Your task to perform on an android device: all mails in gmail Image 0: 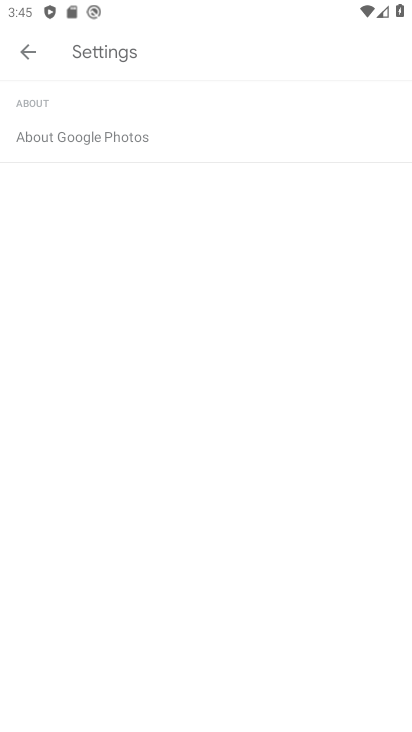
Step 0: drag from (222, 691) to (316, 103)
Your task to perform on an android device: all mails in gmail Image 1: 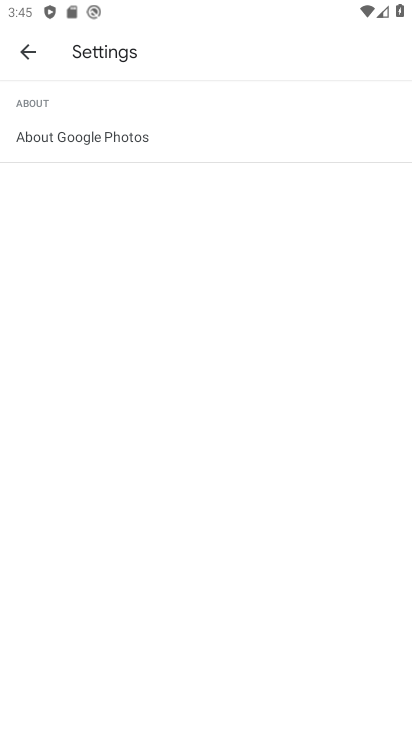
Step 1: press home button
Your task to perform on an android device: all mails in gmail Image 2: 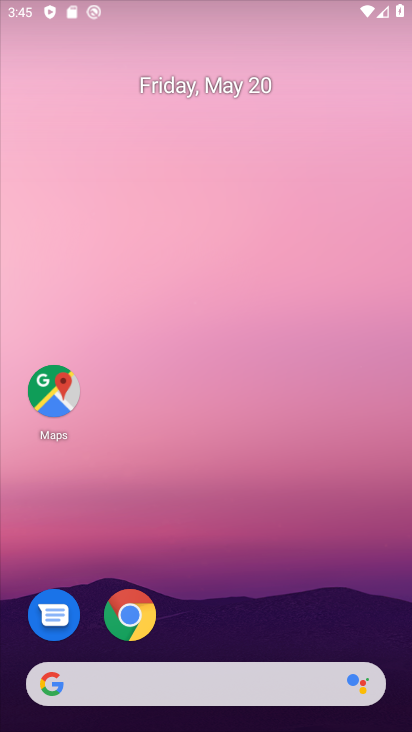
Step 2: drag from (248, 548) to (304, 234)
Your task to perform on an android device: all mails in gmail Image 3: 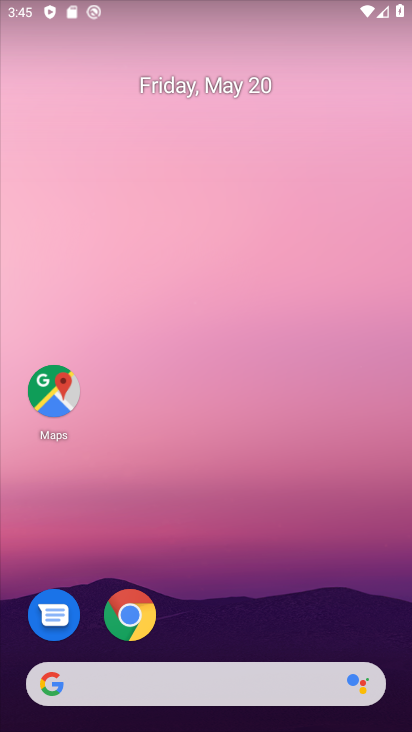
Step 3: drag from (283, 627) to (333, 85)
Your task to perform on an android device: all mails in gmail Image 4: 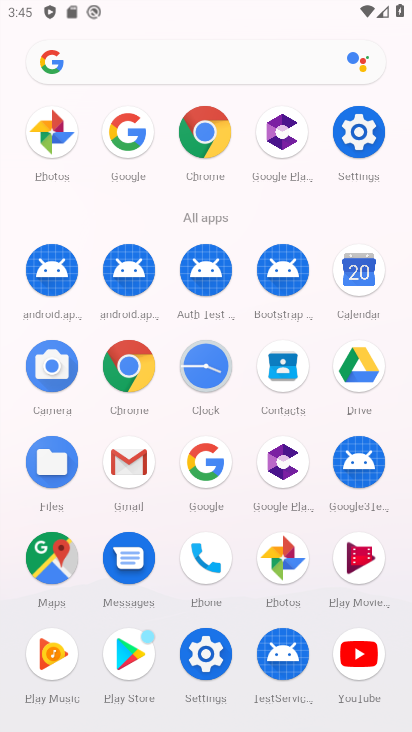
Step 4: click (136, 476)
Your task to perform on an android device: all mails in gmail Image 5: 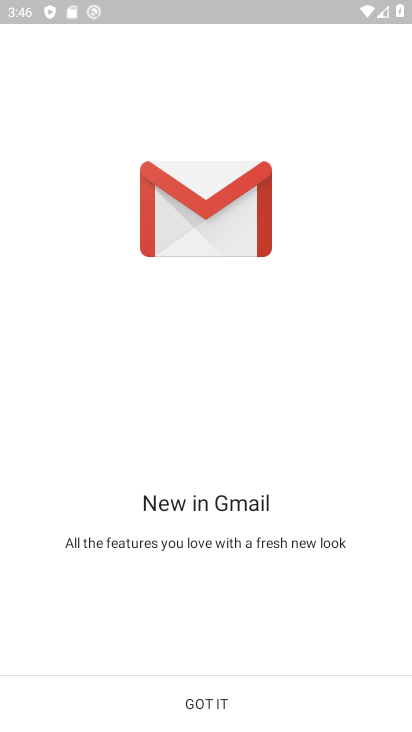
Step 5: click (253, 701)
Your task to perform on an android device: all mails in gmail Image 6: 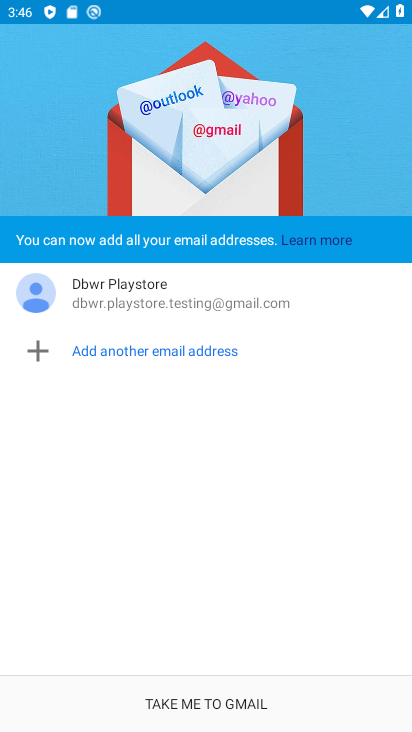
Step 6: click (271, 705)
Your task to perform on an android device: all mails in gmail Image 7: 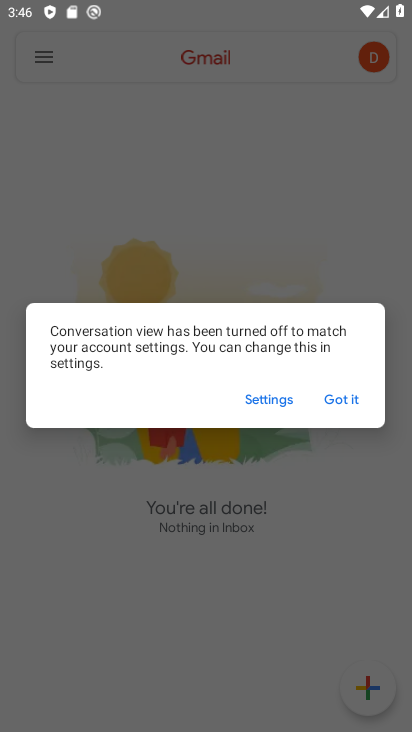
Step 7: click (344, 399)
Your task to perform on an android device: all mails in gmail Image 8: 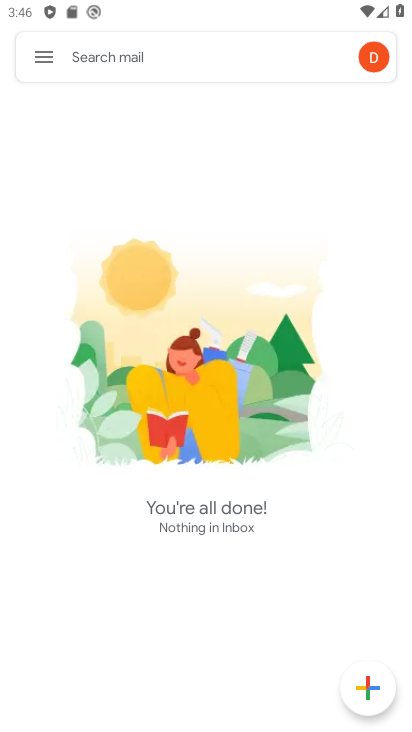
Step 8: click (50, 60)
Your task to perform on an android device: all mails in gmail Image 9: 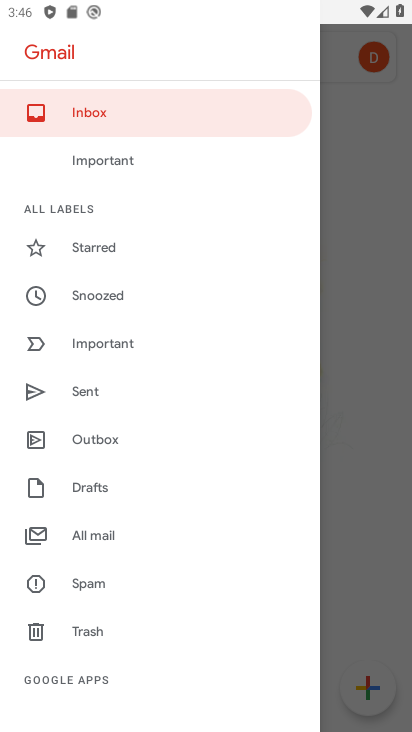
Step 9: drag from (144, 568) to (185, 322)
Your task to perform on an android device: all mails in gmail Image 10: 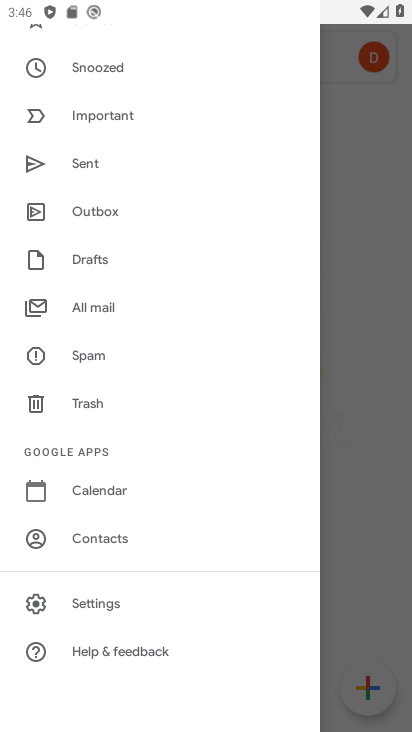
Step 10: click (130, 313)
Your task to perform on an android device: all mails in gmail Image 11: 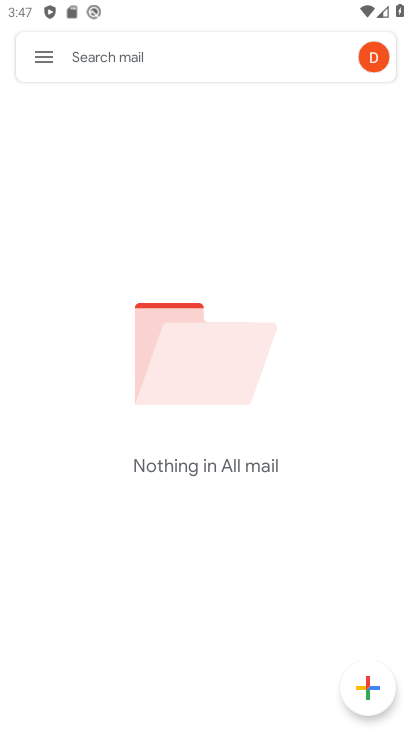
Step 11: task complete